Your task to perform on an android device: What is the recent news? Image 0: 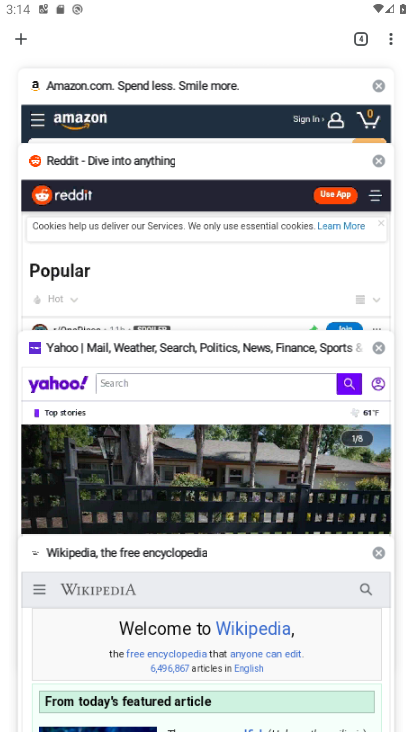
Step 0: press home button
Your task to perform on an android device: What is the recent news? Image 1: 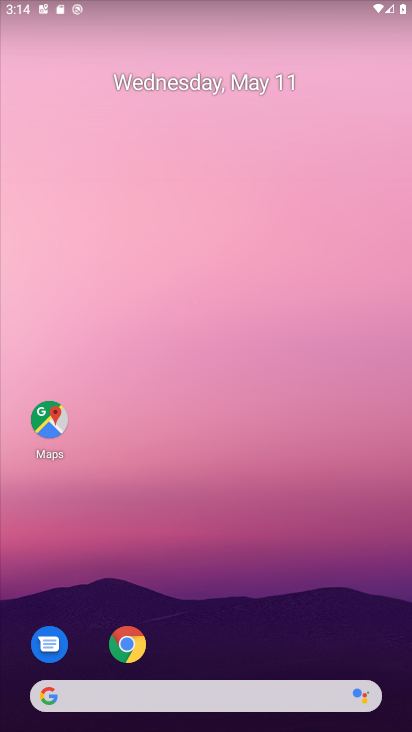
Step 1: click (239, 681)
Your task to perform on an android device: What is the recent news? Image 2: 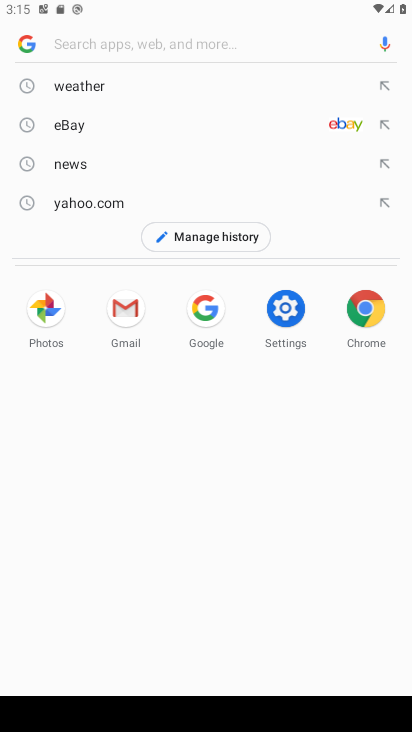
Step 2: click (76, 156)
Your task to perform on an android device: What is the recent news? Image 3: 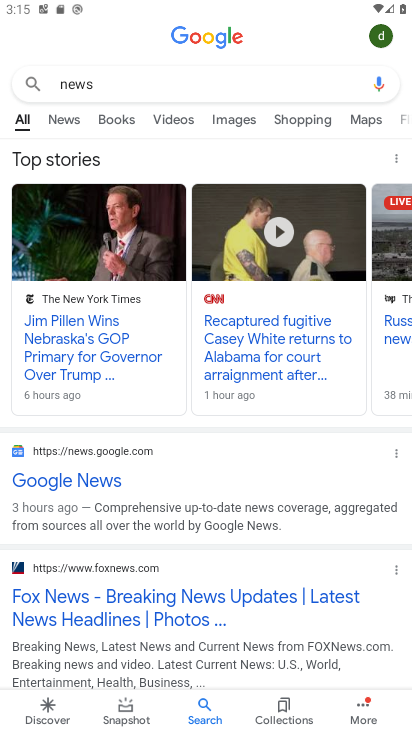
Step 3: task complete